Your task to perform on an android device: Go to Yahoo.com Image 0: 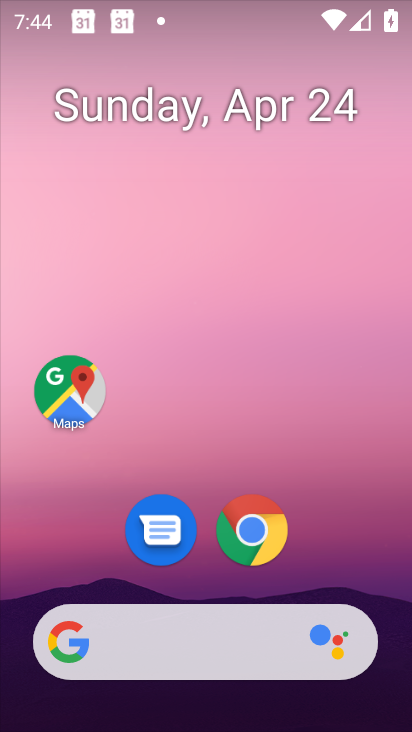
Step 0: click (258, 533)
Your task to perform on an android device: Go to Yahoo.com Image 1: 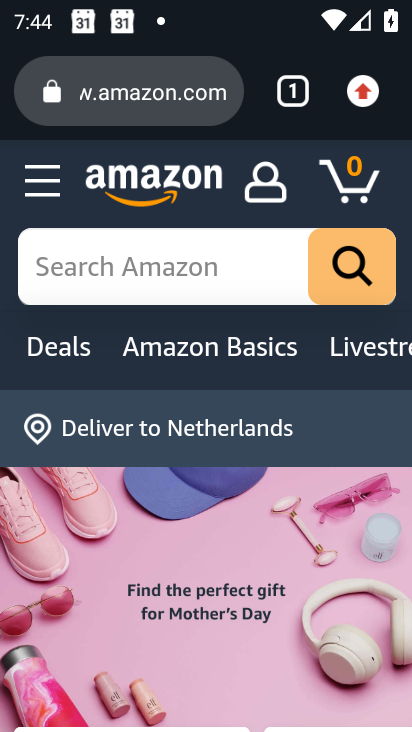
Step 1: click (297, 92)
Your task to perform on an android device: Go to Yahoo.com Image 2: 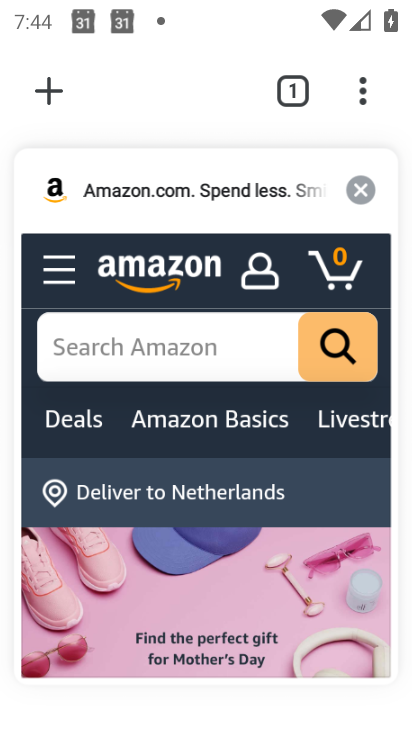
Step 2: click (39, 85)
Your task to perform on an android device: Go to Yahoo.com Image 3: 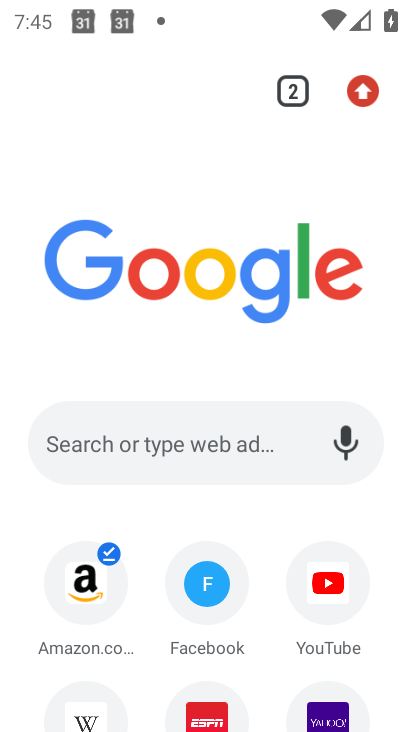
Step 3: click (317, 712)
Your task to perform on an android device: Go to Yahoo.com Image 4: 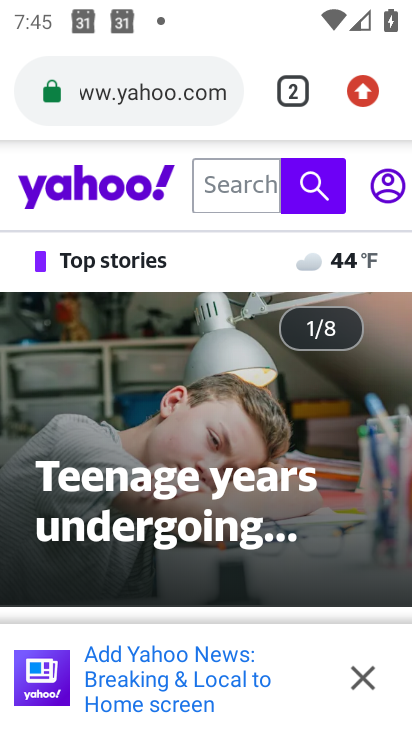
Step 4: task complete